Your task to perform on an android device: set an alarm Image 0: 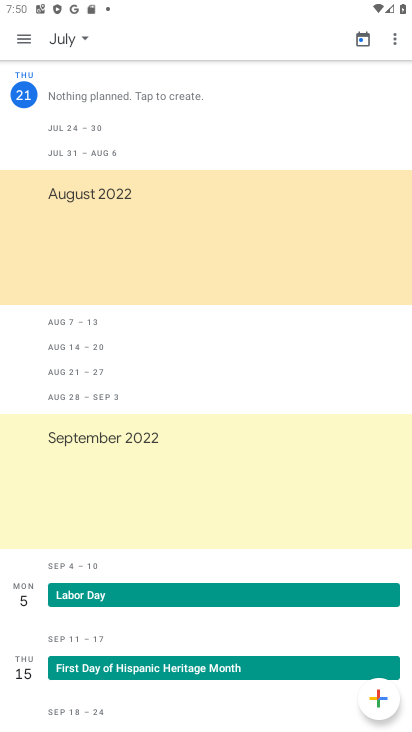
Step 0: press home button
Your task to perform on an android device: set an alarm Image 1: 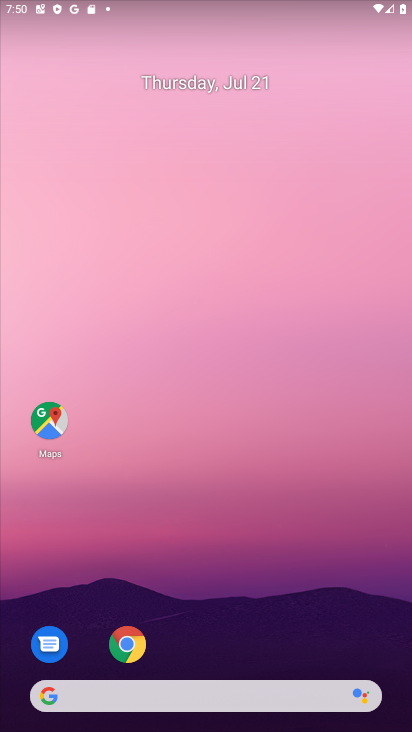
Step 1: drag from (241, 526) to (239, 207)
Your task to perform on an android device: set an alarm Image 2: 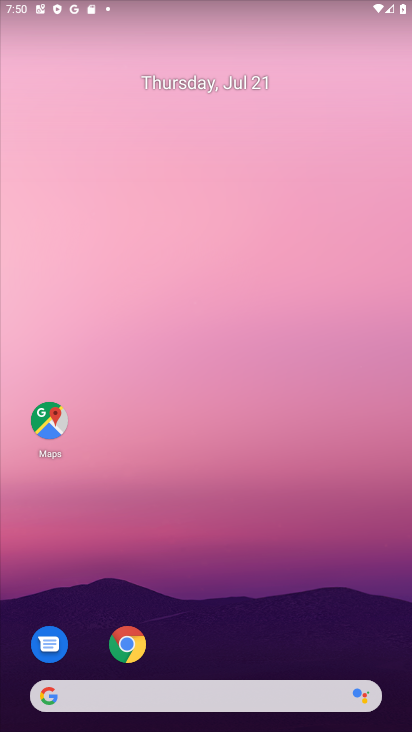
Step 2: drag from (256, 620) to (211, 85)
Your task to perform on an android device: set an alarm Image 3: 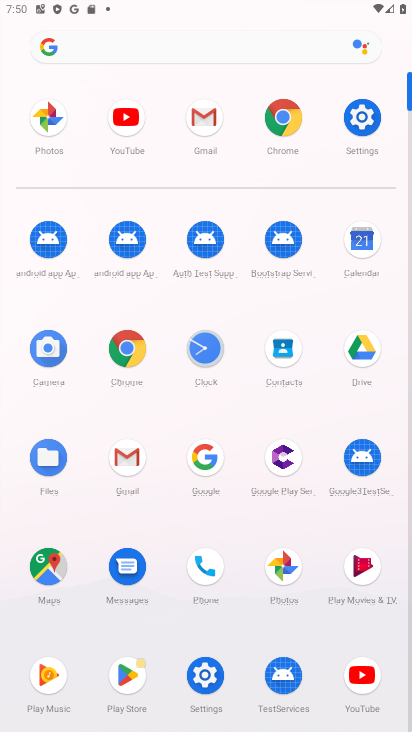
Step 3: click (203, 342)
Your task to perform on an android device: set an alarm Image 4: 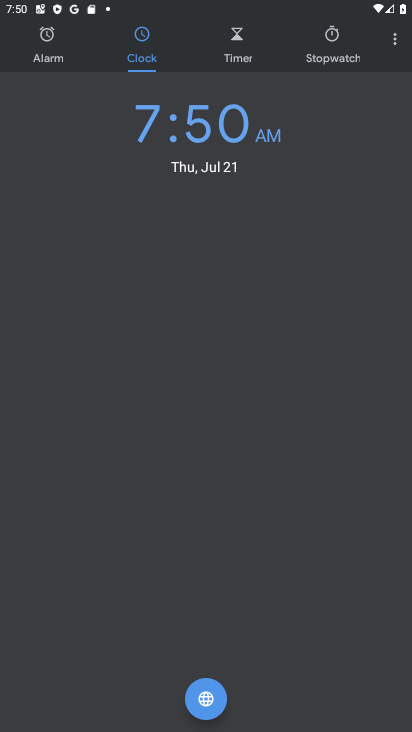
Step 4: click (47, 40)
Your task to perform on an android device: set an alarm Image 5: 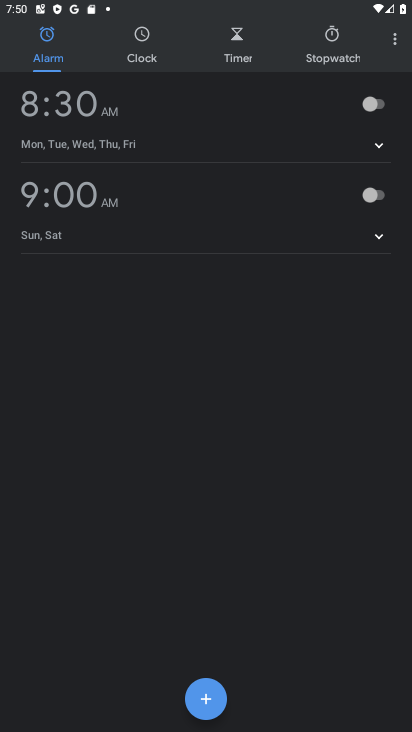
Step 5: click (376, 103)
Your task to perform on an android device: set an alarm Image 6: 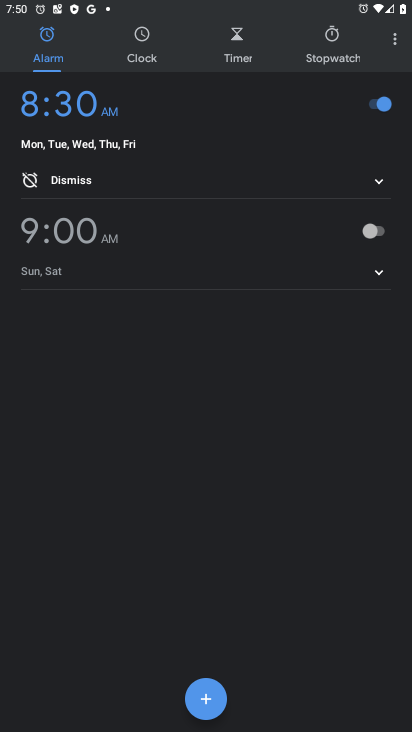
Step 6: task complete